Your task to perform on an android device: turn on priority inbox in the gmail app Image 0: 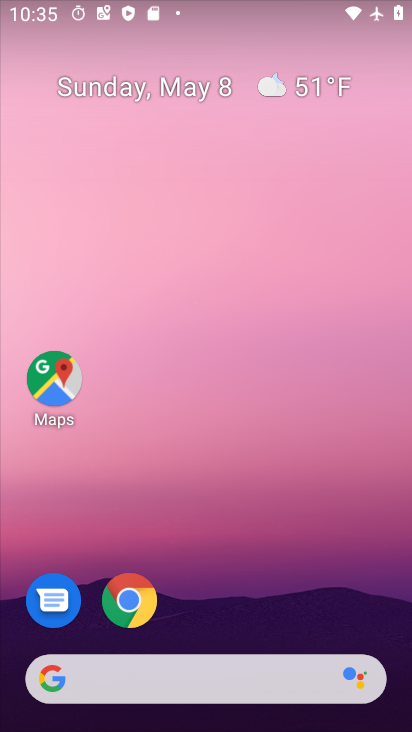
Step 0: drag from (267, 542) to (212, 20)
Your task to perform on an android device: turn on priority inbox in the gmail app Image 1: 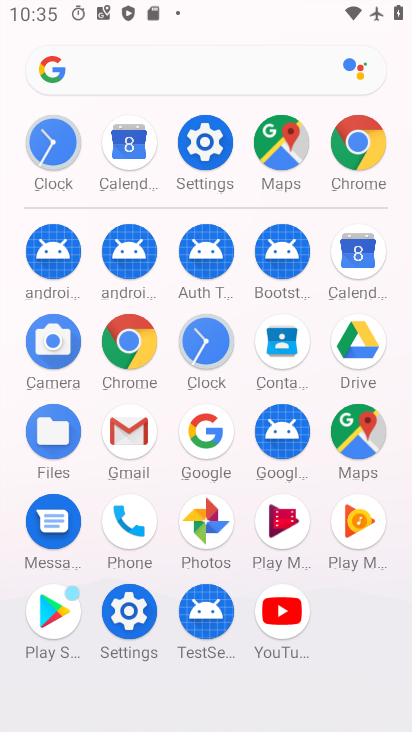
Step 1: drag from (0, 500) to (4, 189)
Your task to perform on an android device: turn on priority inbox in the gmail app Image 2: 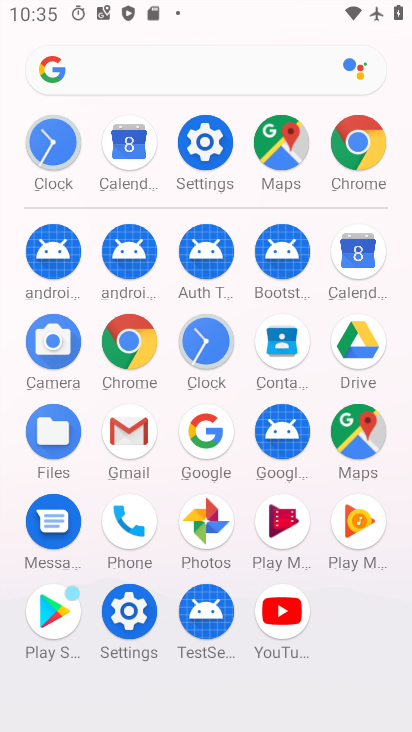
Step 2: click (123, 425)
Your task to perform on an android device: turn on priority inbox in the gmail app Image 3: 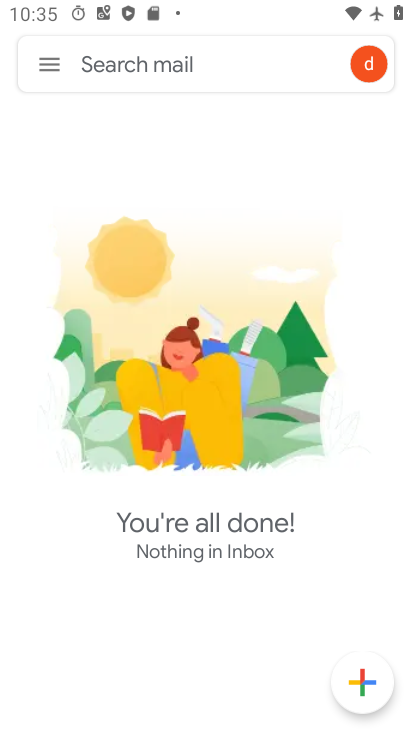
Step 3: click (38, 62)
Your task to perform on an android device: turn on priority inbox in the gmail app Image 4: 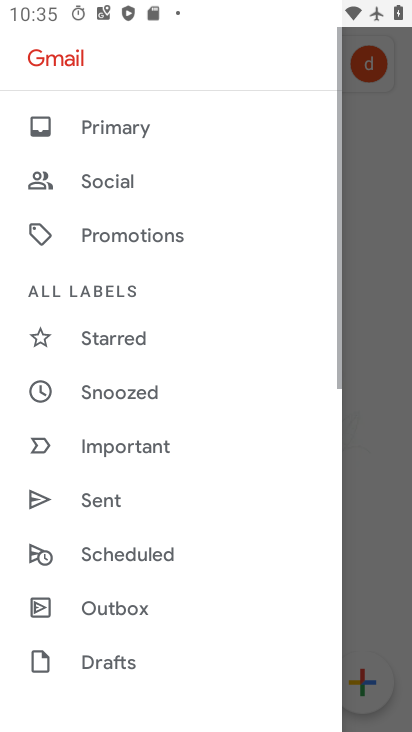
Step 4: drag from (180, 651) to (213, 109)
Your task to perform on an android device: turn on priority inbox in the gmail app Image 5: 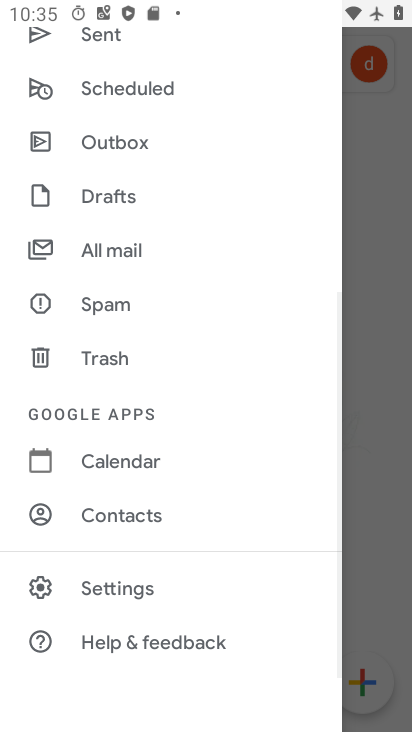
Step 5: click (138, 591)
Your task to perform on an android device: turn on priority inbox in the gmail app Image 6: 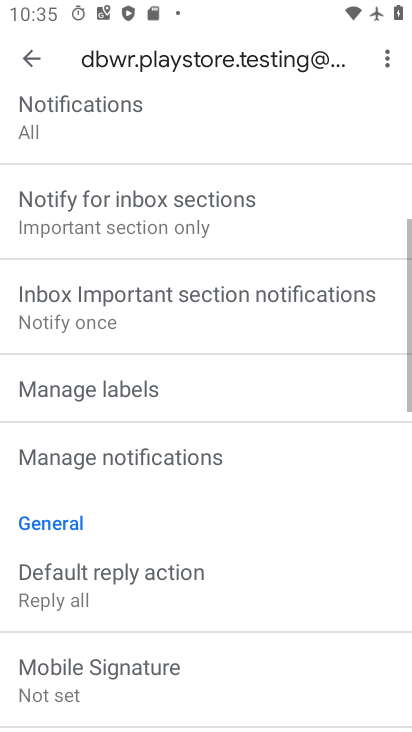
Step 6: task complete